Your task to perform on an android device: Add "razer thresher" to the cart on ebay.com, then select checkout. Image 0: 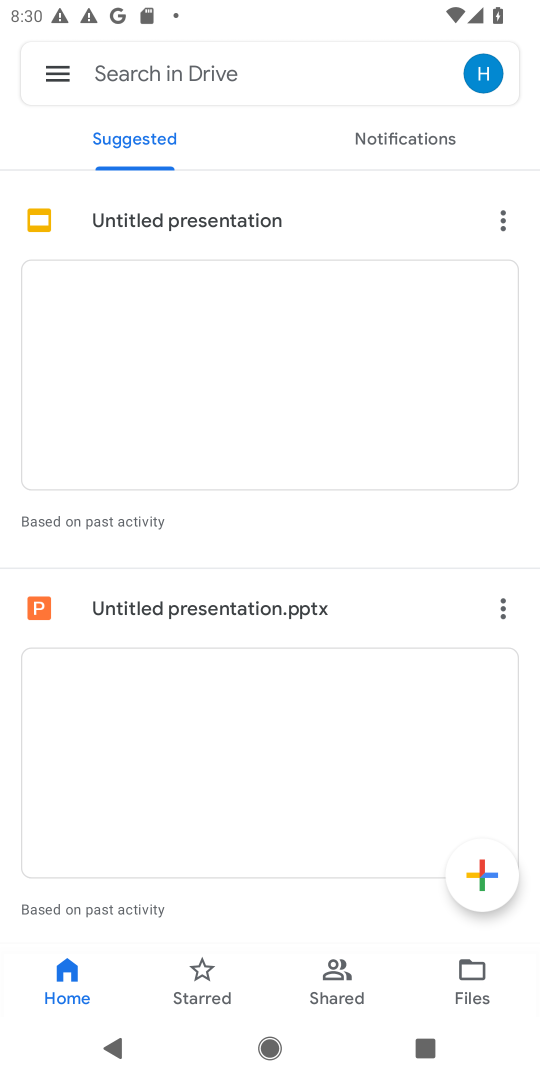
Step 0: press home button
Your task to perform on an android device: Add "razer thresher" to the cart on ebay.com, then select checkout. Image 1: 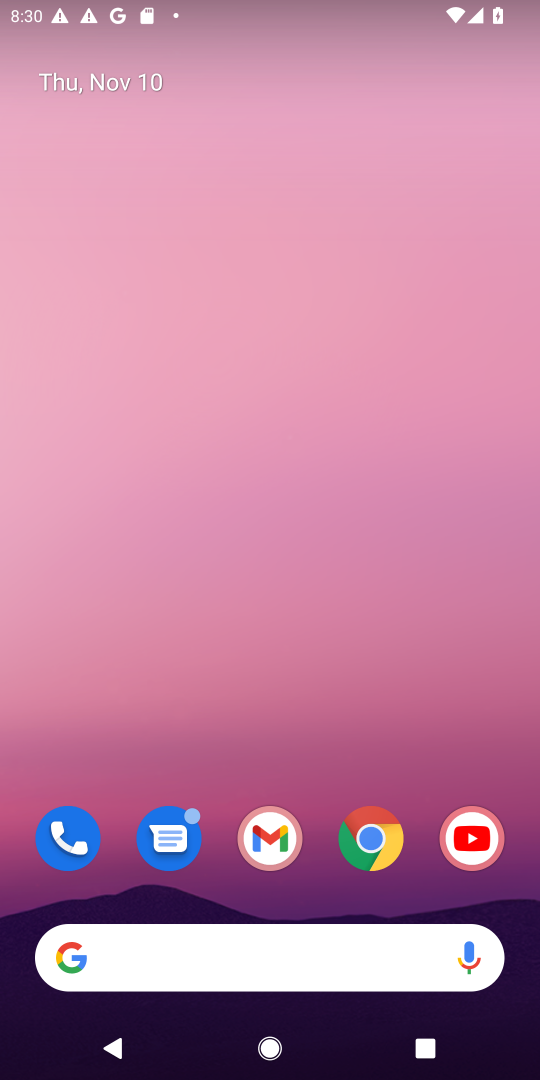
Step 1: drag from (321, 902) to (320, 138)
Your task to perform on an android device: Add "razer thresher" to the cart on ebay.com, then select checkout. Image 2: 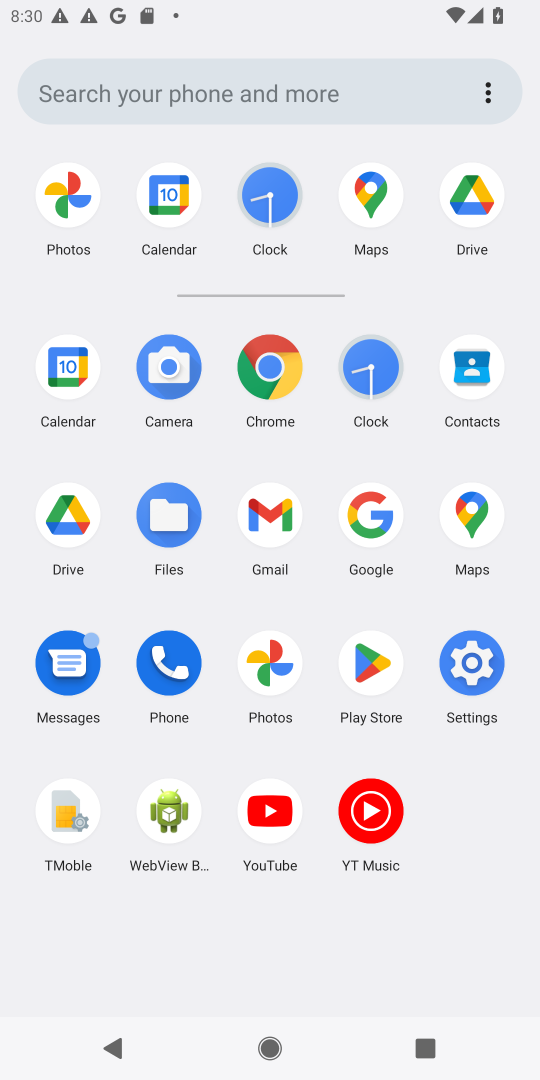
Step 2: click (268, 364)
Your task to perform on an android device: Add "razer thresher" to the cart on ebay.com, then select checkout. Image 3: 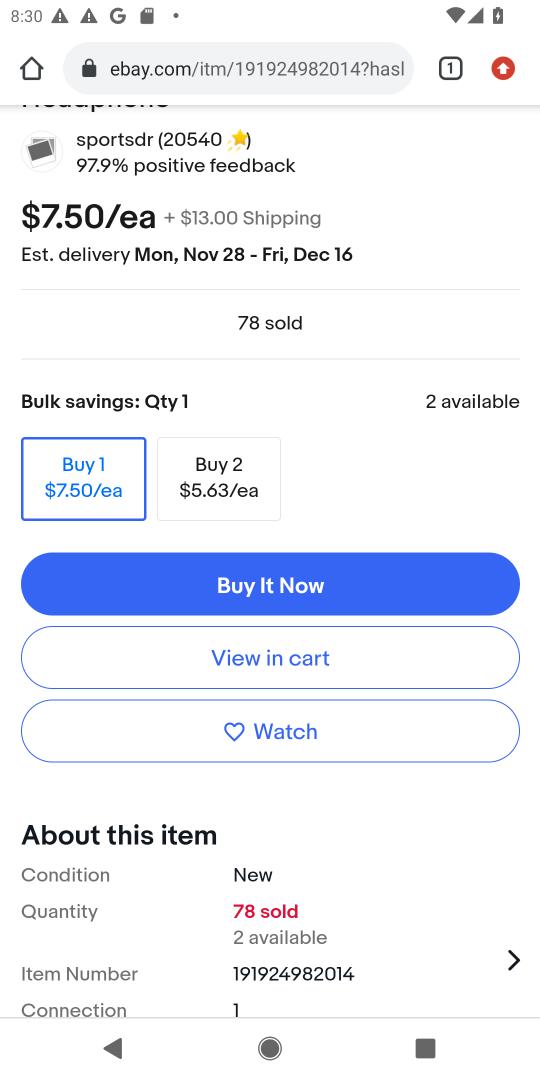
Step 3: click (283, 50)
Your task to perform on an android device: Add "razer thresher" to the cart on ebay.com, then select checkout. Image 4: 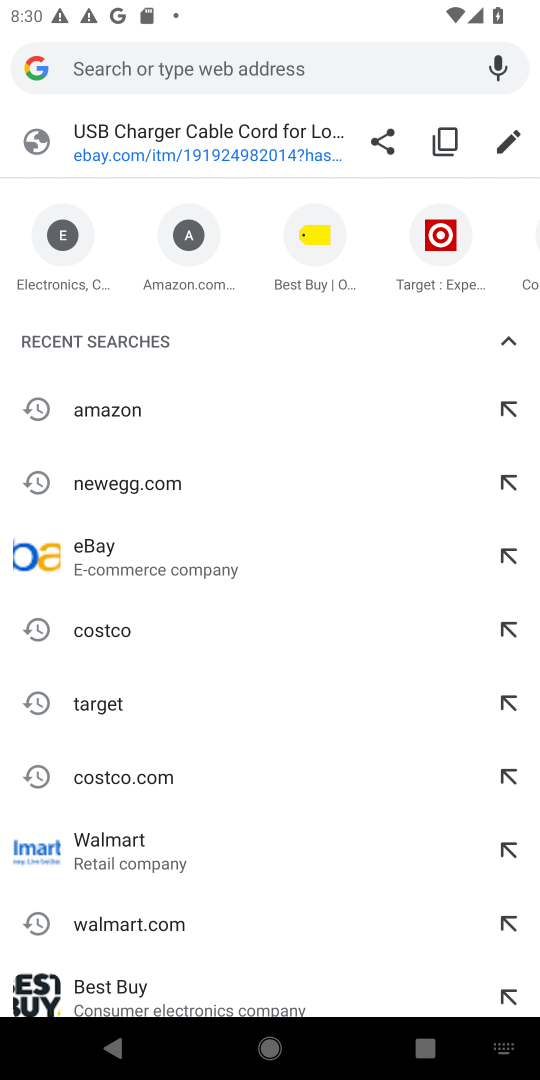
Step 4: type "ebay.com"
Your task to perform on an android device: Add "razer thresher" to the cart on ebay.com, then select checkout. Image 5: 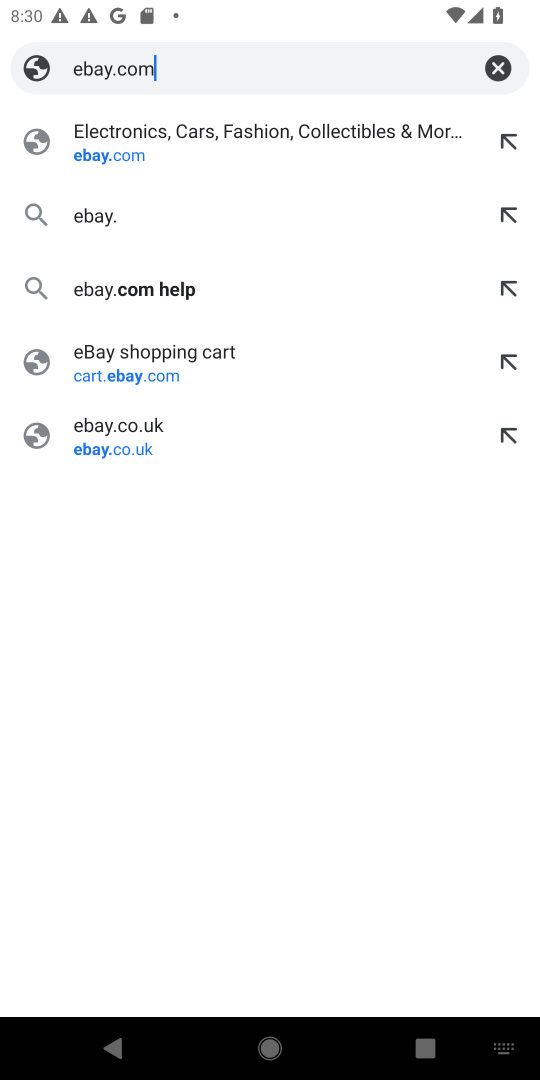
Step 5: press enter
Your task to perform on an android device: Add "razer thresher" to the cart on ebay.com, then select checkout. Image 6: 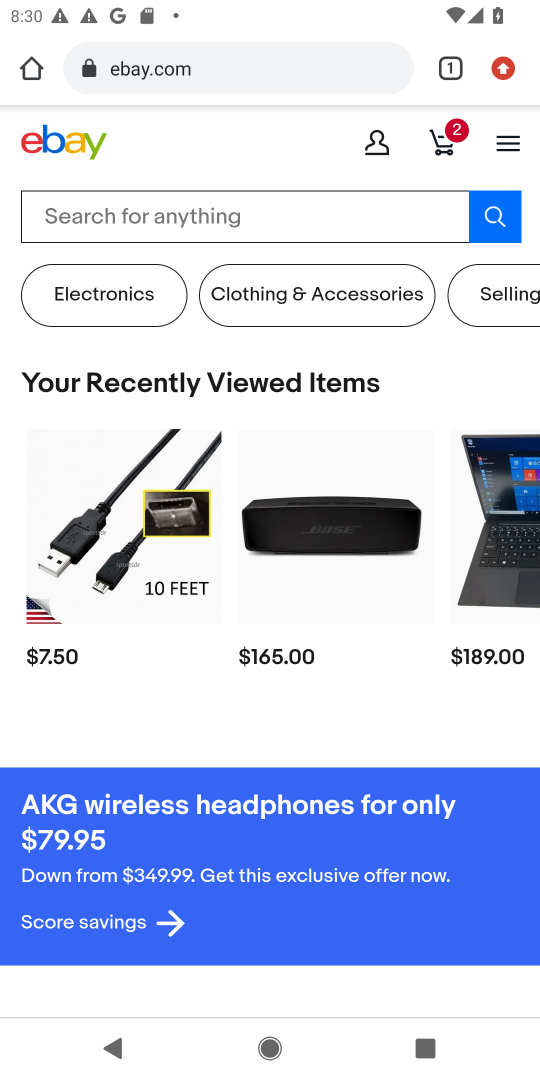
Step 6: click (371, 210)
Your task to perform on an android device: Add "razer thresher" to the cart on ebay.com, then select checkout. Image 7: 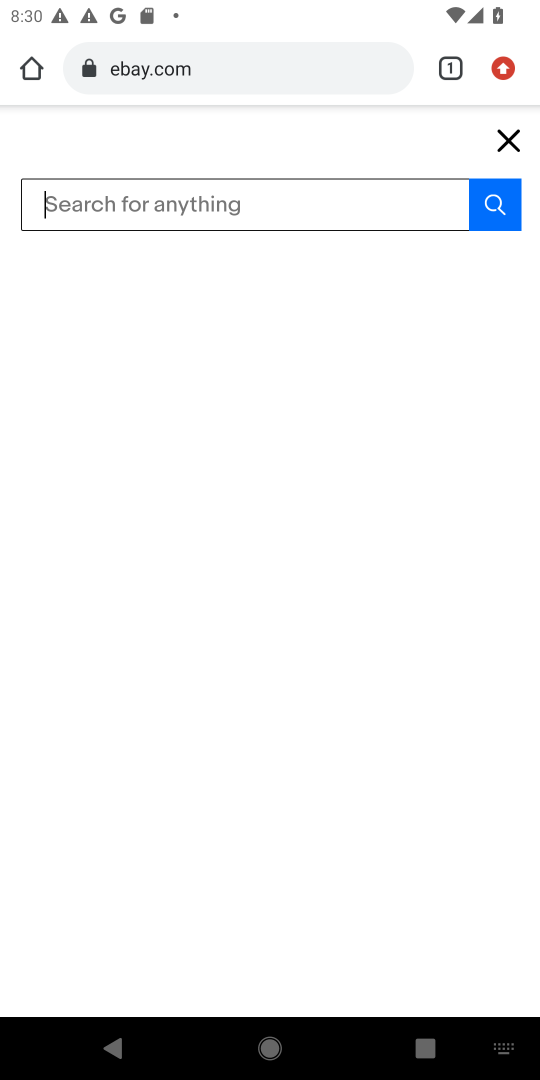
Step 7: type "razer thresher"
Your task to perform on an android device: Add "razer thresher" to the cart on ebay.com, then select checkout. Image 8: 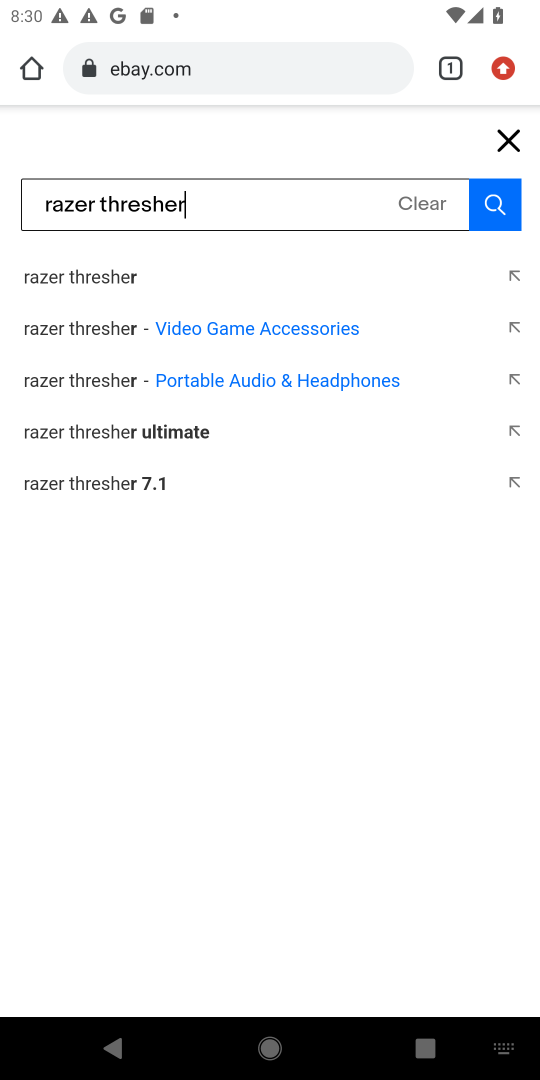
Step 8: press enter
Your task to perform on an android device: Add "razer thresher" to the cart on ebay.com, then select checkout. Image 9: 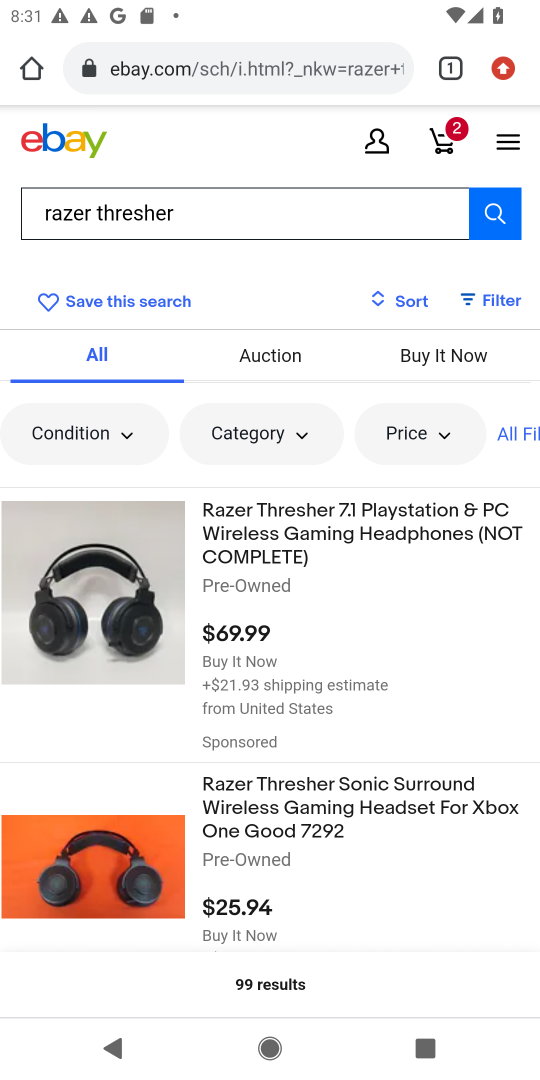
Step 9: click (387, 527)
Your task to perform on an android device: Add "razer thresher" to the cart on ebay.com, then select checkout. Image 10: 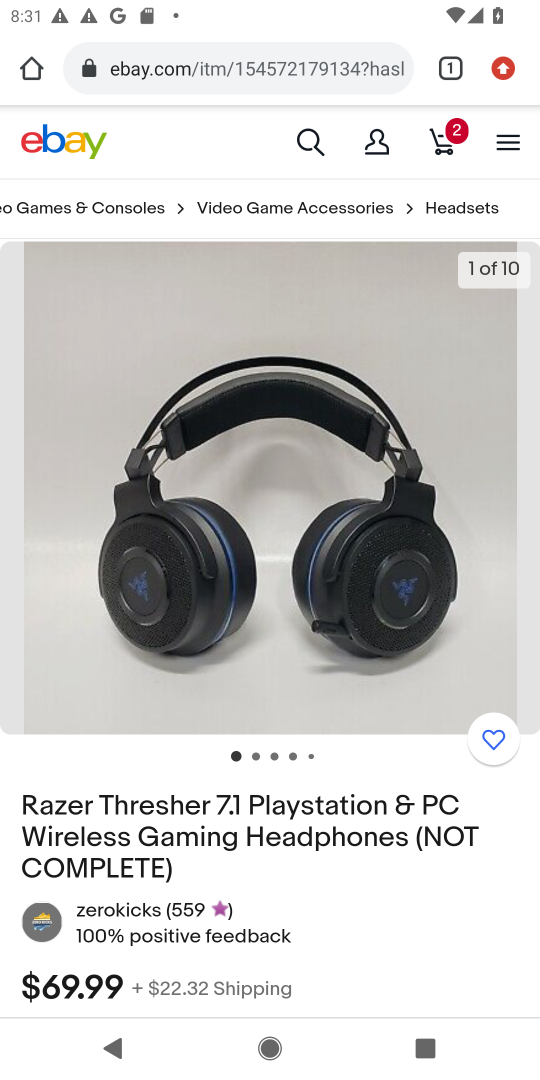
Step 10: drag from (321, 875) to (353, 18)
Your task to perform on an android device: Add "razer thresher" to the cart on ebay.com, then select checkout. Image 11: 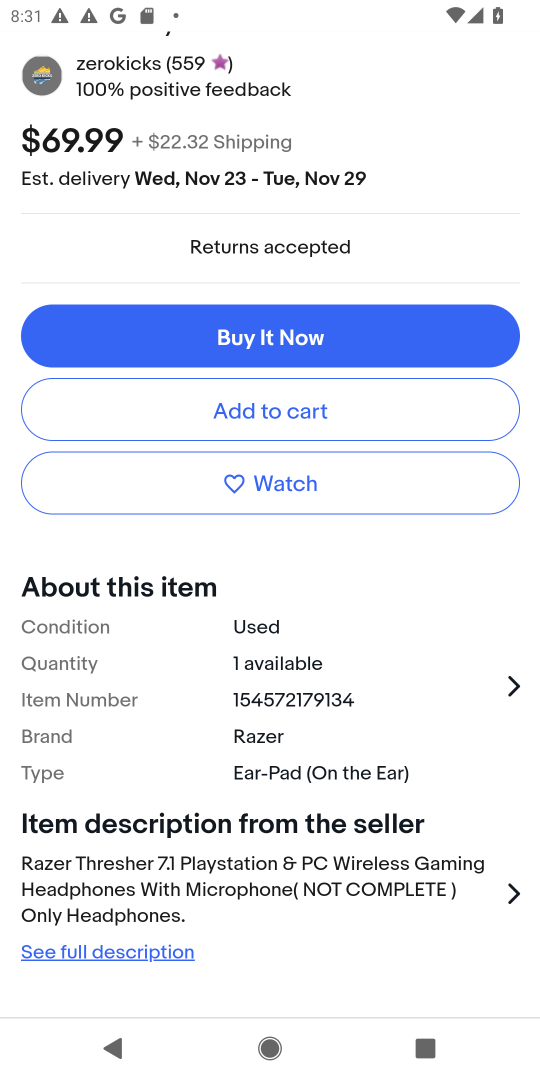
Step 11: click (388, 418)
Your task to perform on an android device: Add "razer thresher" to the cart on ebay.com, then select checkout. Image 12: 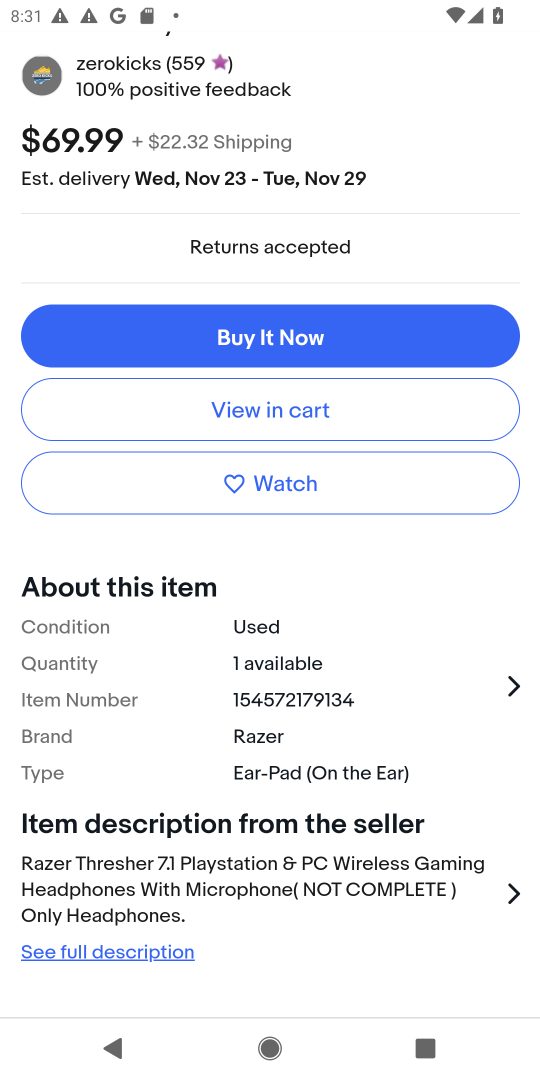
Step 12: click (400, 416)
Your task to perform on an android device: Add "razer thresher" to the cart on ebay.com, then select checkout. Image 13: 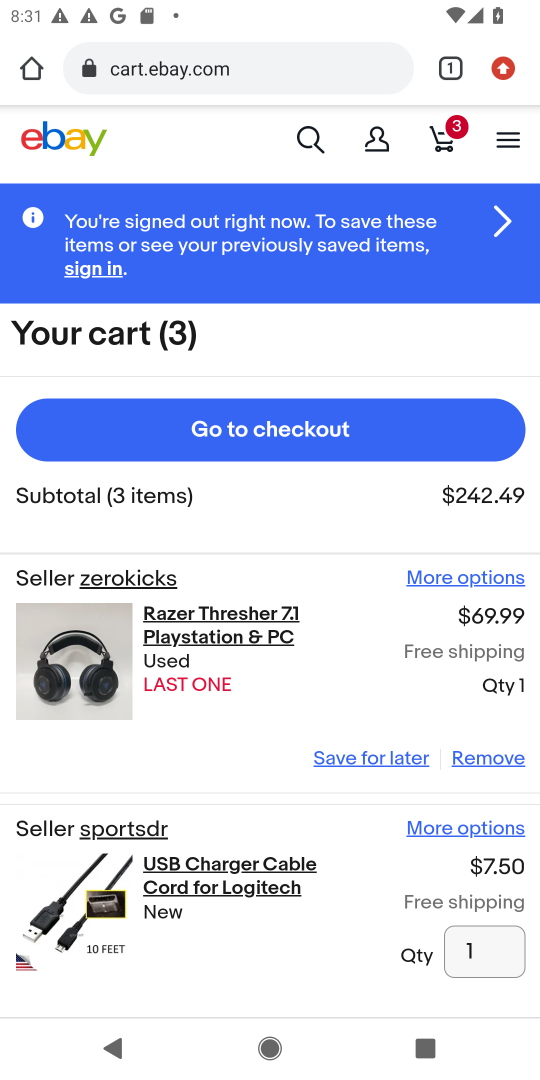
Step 13: drag from (305, 845) to (274, 717)
Your task to perform on an android device: Add "razer thresher" to the cart on ebay.com, then select checkout. Image 14: 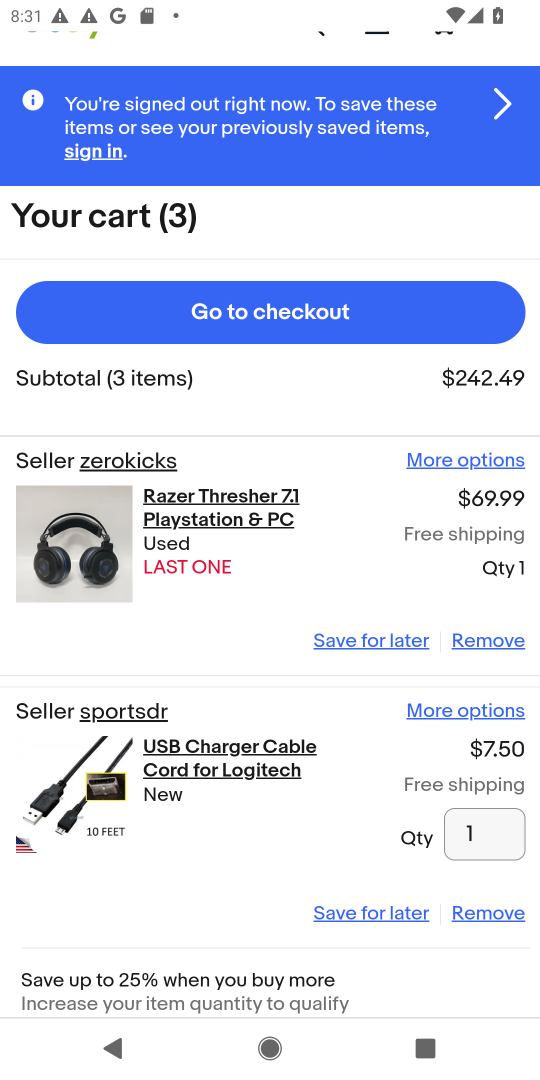
Step 14: click (336, 324)
Your task to perform on an android device: Add "razer thresher" to the cart on ebay.com, then select checkout. Image 15: 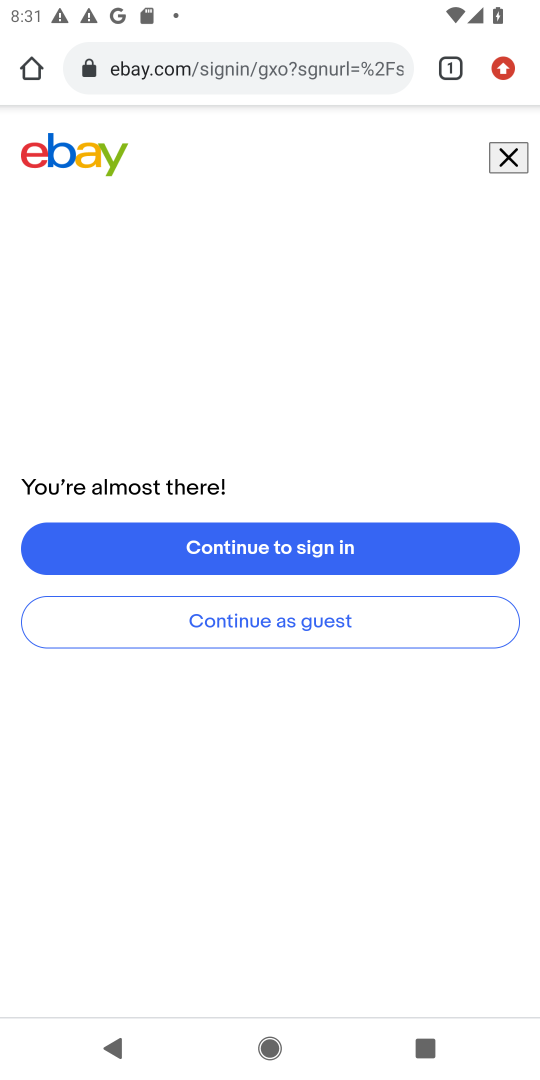
Step 15: task complete